Your task to perform on an android device: Check the weather Image 0: 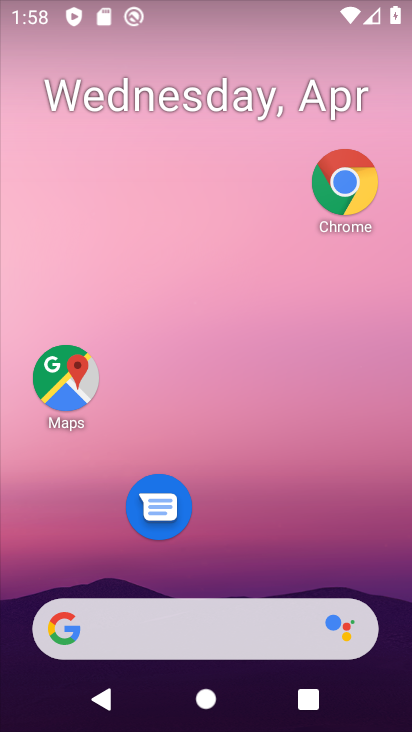
Step 0: drag from (258, 706) to (291, 110)
Your task to perform on an android device: Check the weather Image 1: 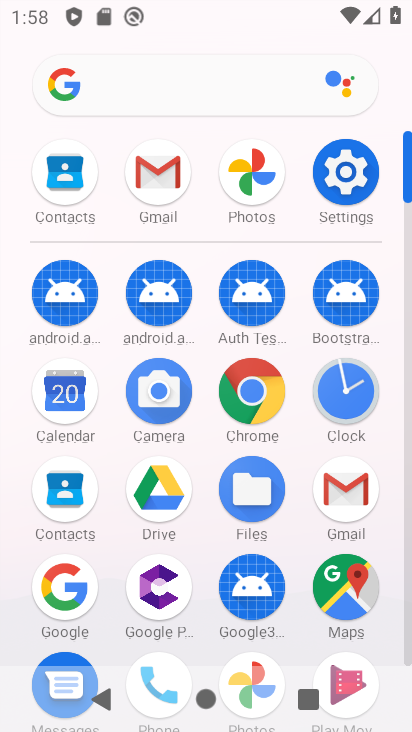
Step 1: press home button
Your task to perform on an android device: Check the weather Image 2: 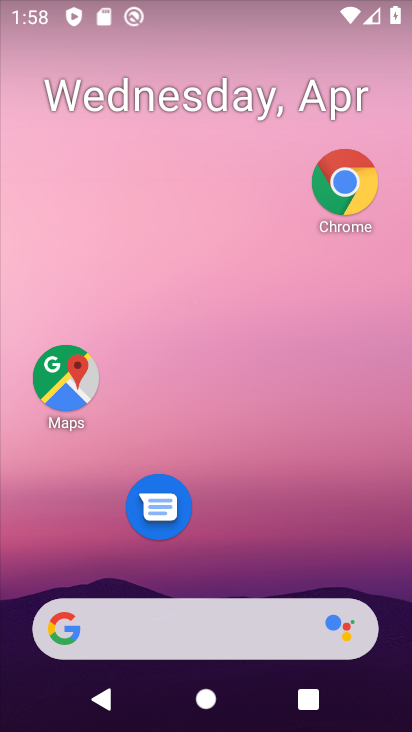
Step 2: click (219, 627)
Your task to perform on an android device: Check the weather Image 3: 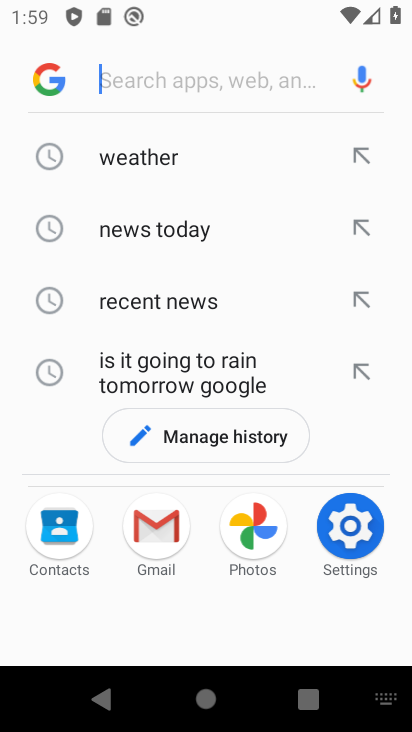
Step 3: click (183, 159)
Your task to perform on an android device: Check the weather Image 4: 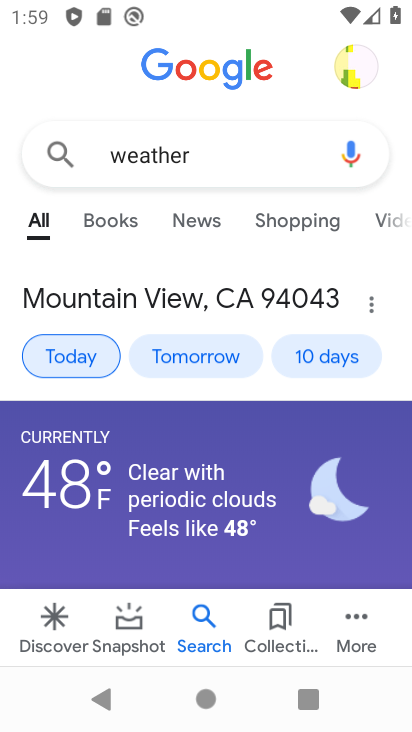
Step 4: task complete